Your task to perform on an android device: Search for a 36" x 48" whiteboard on Home Depot Image 0: 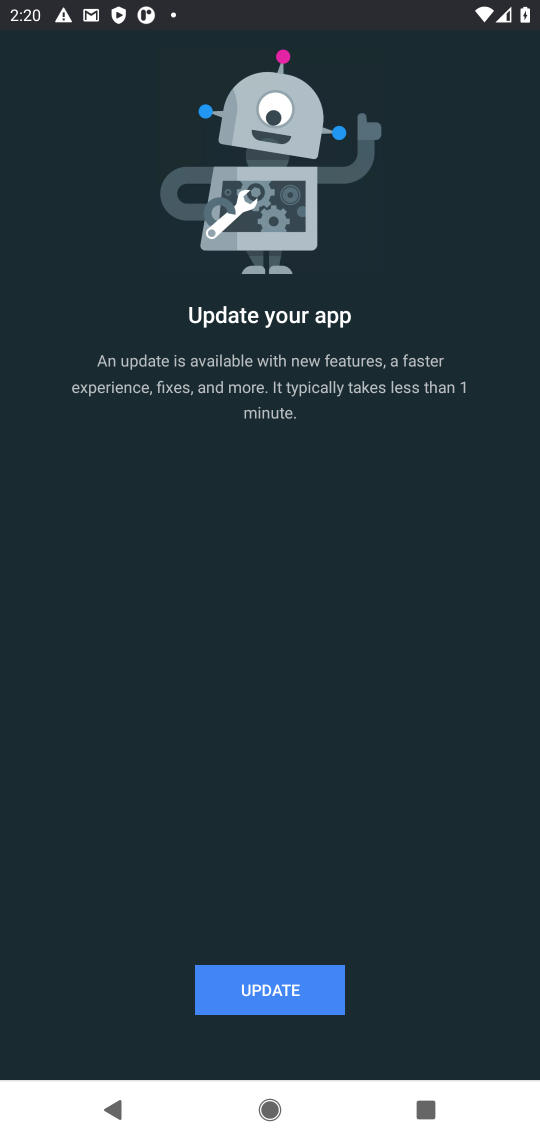
Step 0: press home button
Your task to perform on an android device: Search for a 36" x 48" whiteboard on Home Depot Image 1: 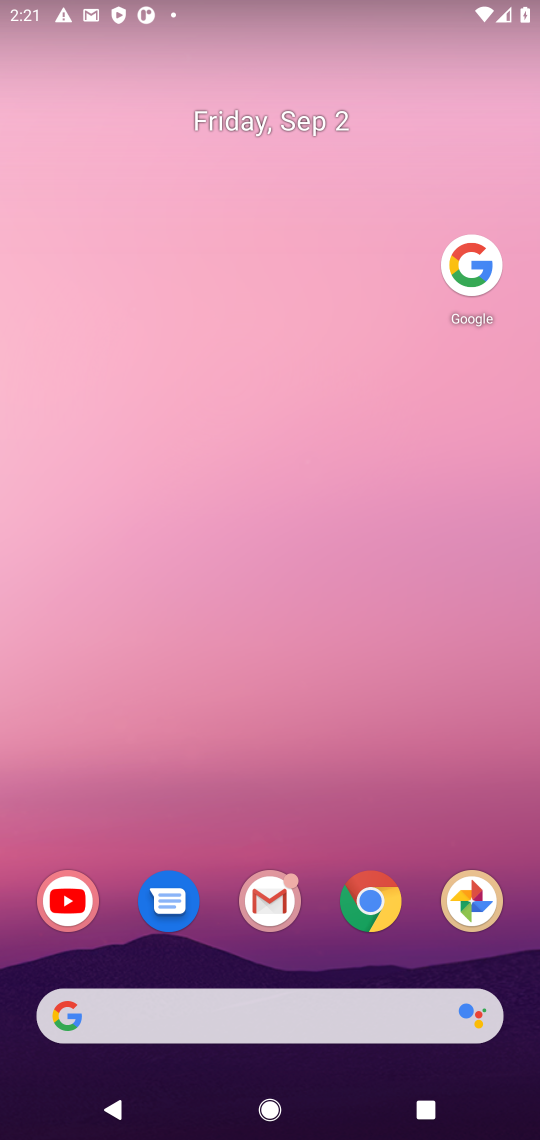
Step 1: click (465, 256)
Your task to perform on an android device: Search for a 36" x 48" whiteboard on Home Depot Image 2: 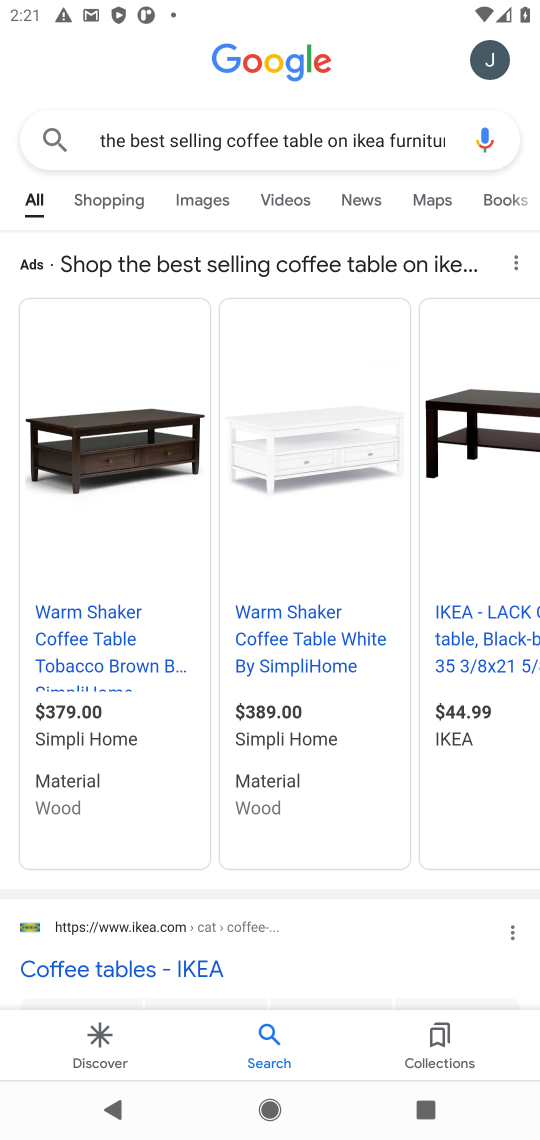
Step 2: click (385, 129)
Your task to perform on an android device: Search for a 36" x 48" whiteboard on Home Depot Image 3: 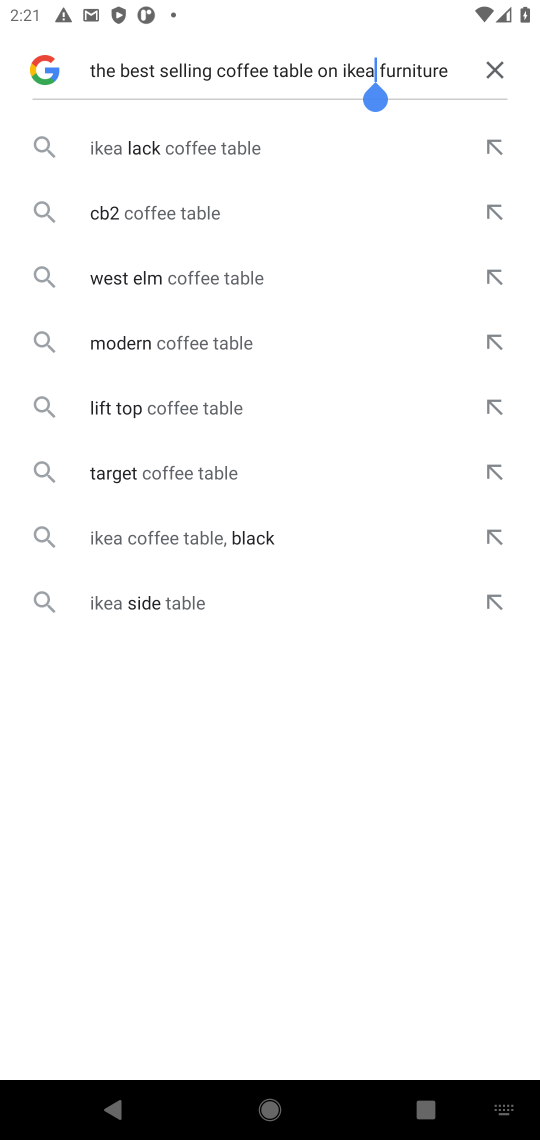
Step 3: click (489, 63)
Your task to perform on an android device: Search for a 36" x 48" whiteboard on Home Depot Image 4: 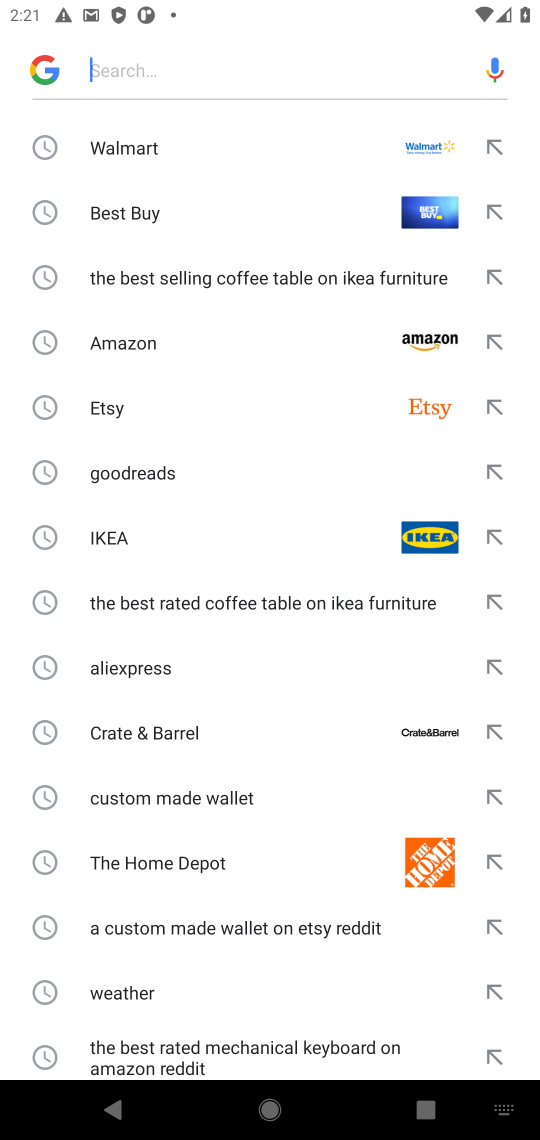
Step 4: click (262, 64)
Your task to perform on an android device: Search for a 36" x 48" whiteboard on Home Depot Image 5: 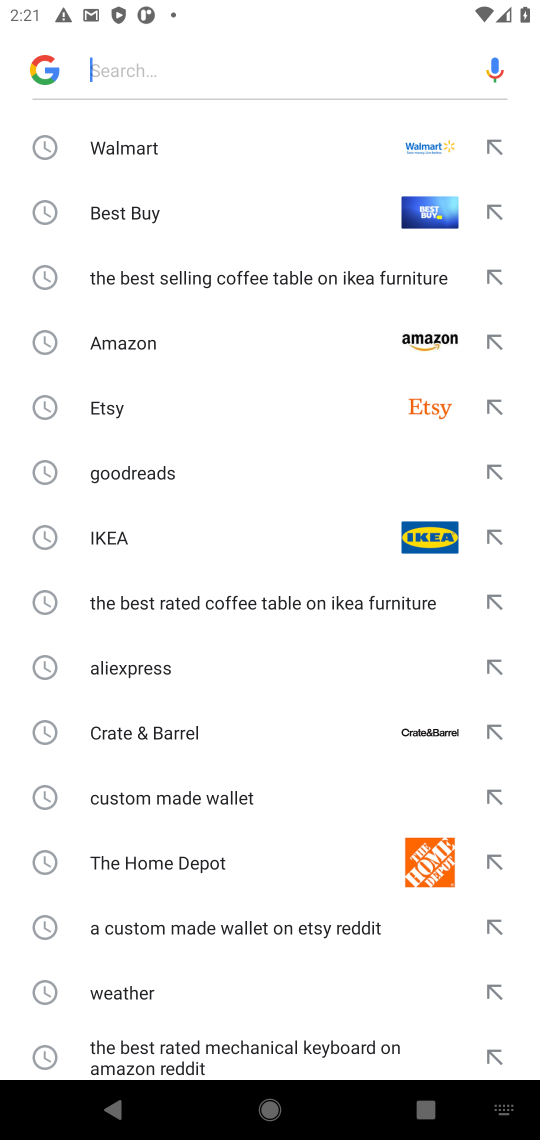
Step 5: type " a 36" x 48" whiteboard on Home Depot "
Your task to perform on an android device: Search for a 36" x 48" whiteboard on Home Depot Image 6: 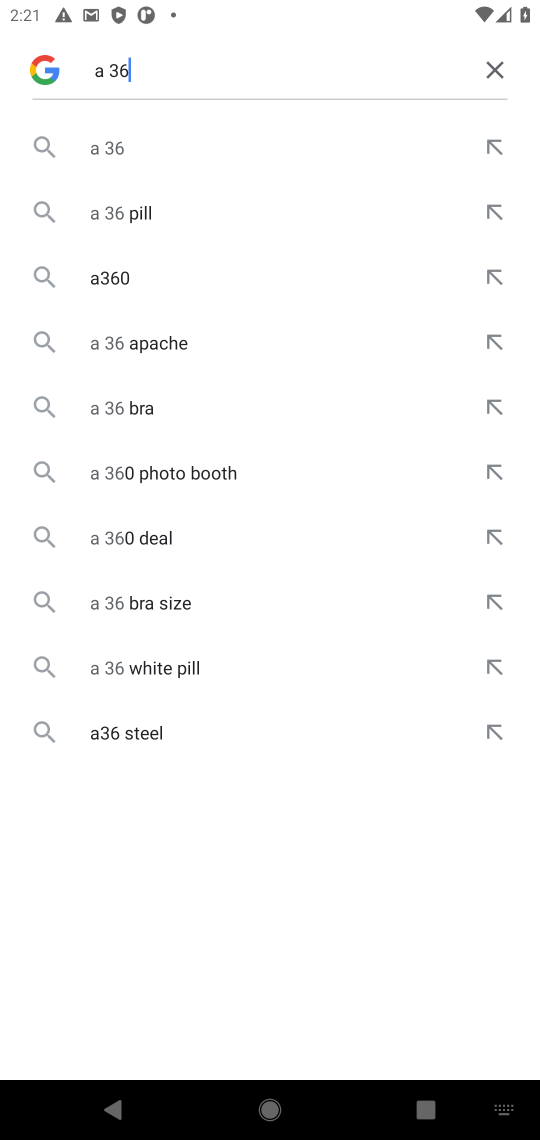
Step 6: click (121, 141)
Your task to perform on an android device: Search for a 36" x 48" whiteboard on Home Depot Image 7: 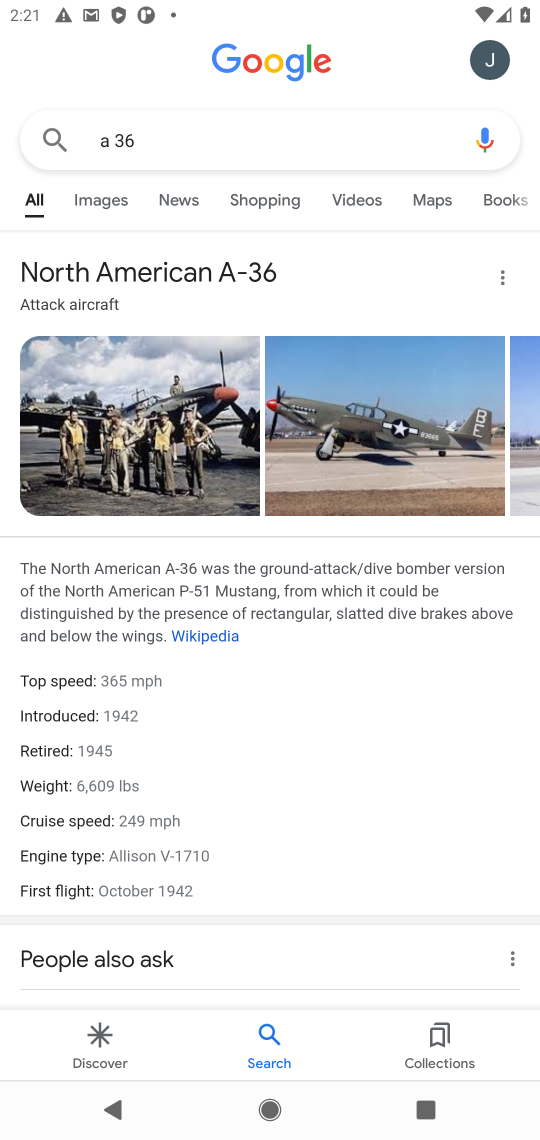
Step 7: click (433, 122)
Your task to perform on an android device: Search for a 36" x 48" whiteboard on Home Depot Image 8: 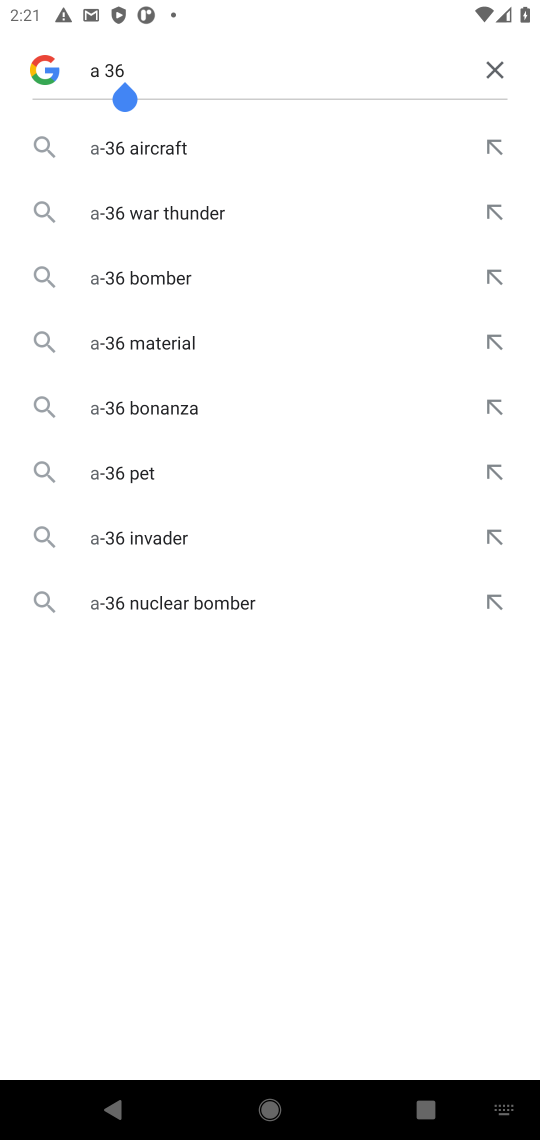
Step 8: click (501, 60)
Your task to perform on an android device: Search for a 36" x 48" whiteboard on Home Depot Image 9: 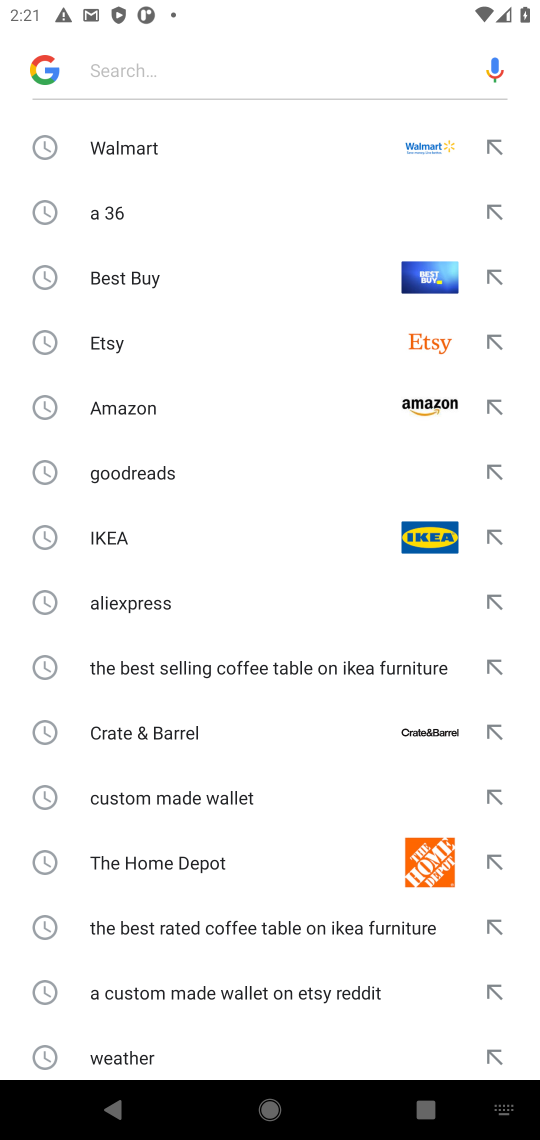
Step 9: click (233, 73)
Your task to perform on an android device: Search for a 36" x 48" whiteboard on Home Depot Image 10: 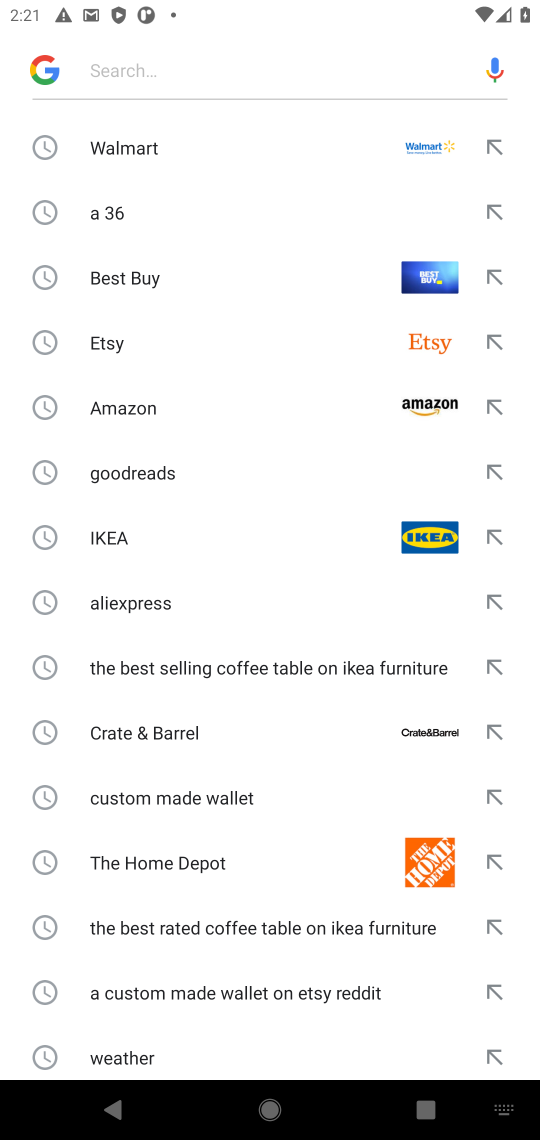
Step 10: type " a 36" x 48" whiteboard on Home Depot "
Your task to perform on an android device: Search for a 36" x 48" whiteboard on Home Depot Image 11: 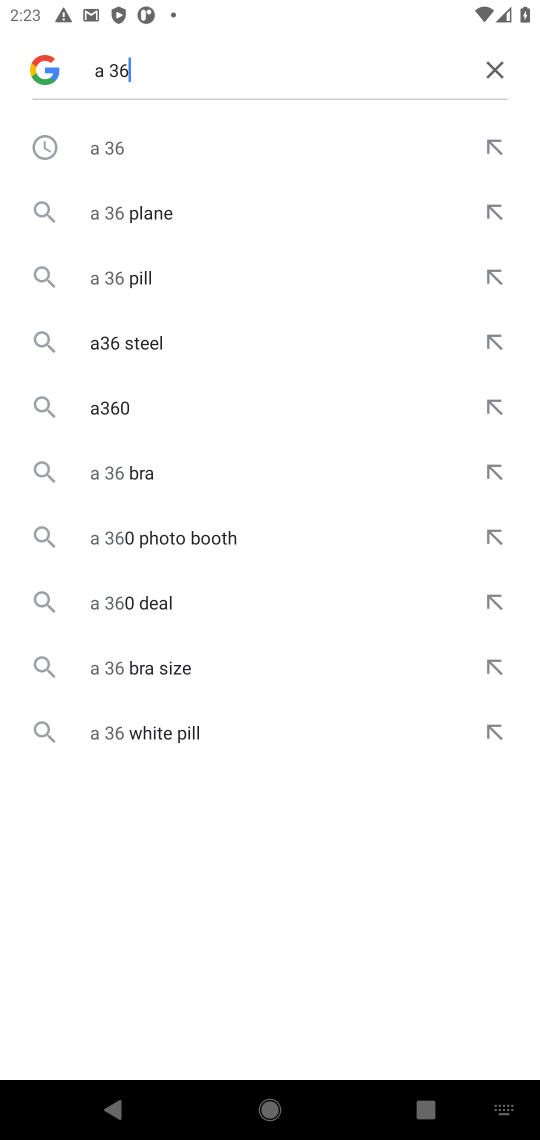
Step 11: click (503, 60)
Your task to perform on an android device: Search for a 36" x 48" whiteboard on Home Depot Image 12: 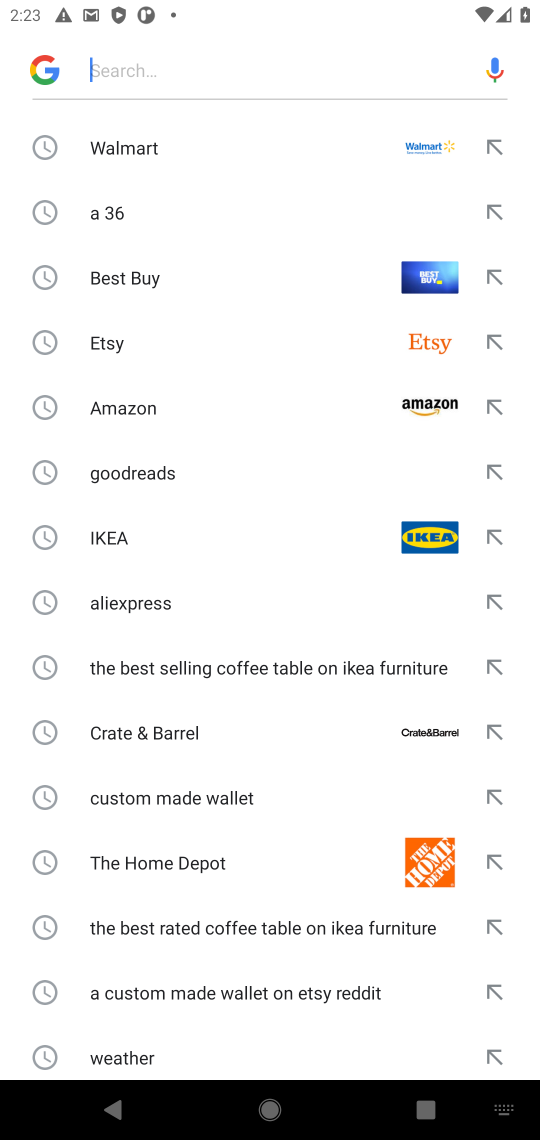
Step 12: click (195, 75)
Your task to perform on an android device: Search for a 36" x 48" whiteboard on Home Depot Image 13: 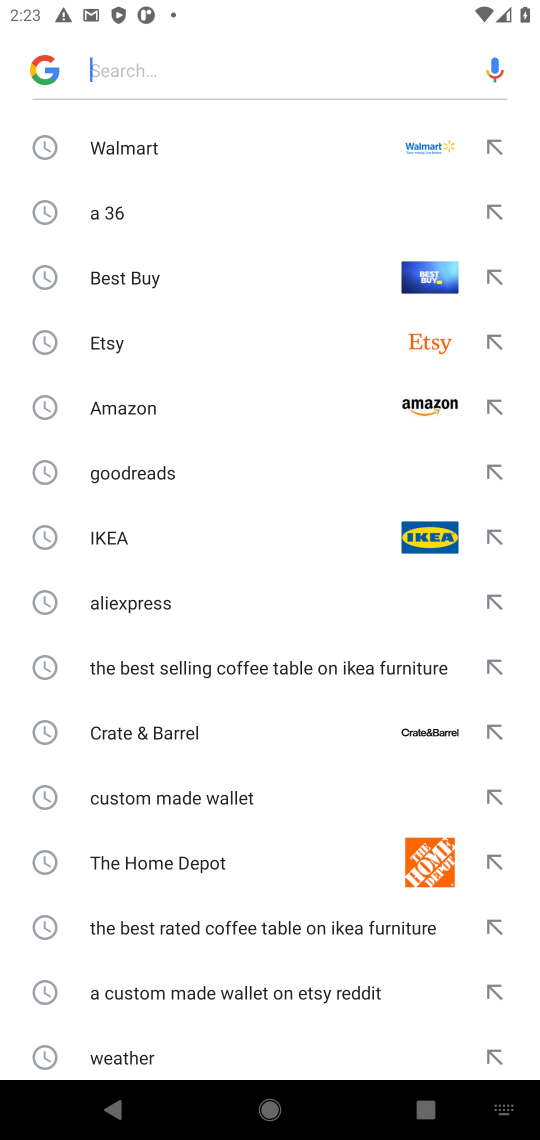
Step 13: type " whiteboard on Home Depot "
Your task to perform on an android device: Search for a 36" x 48" whiteboard on Home Depot Image 14: 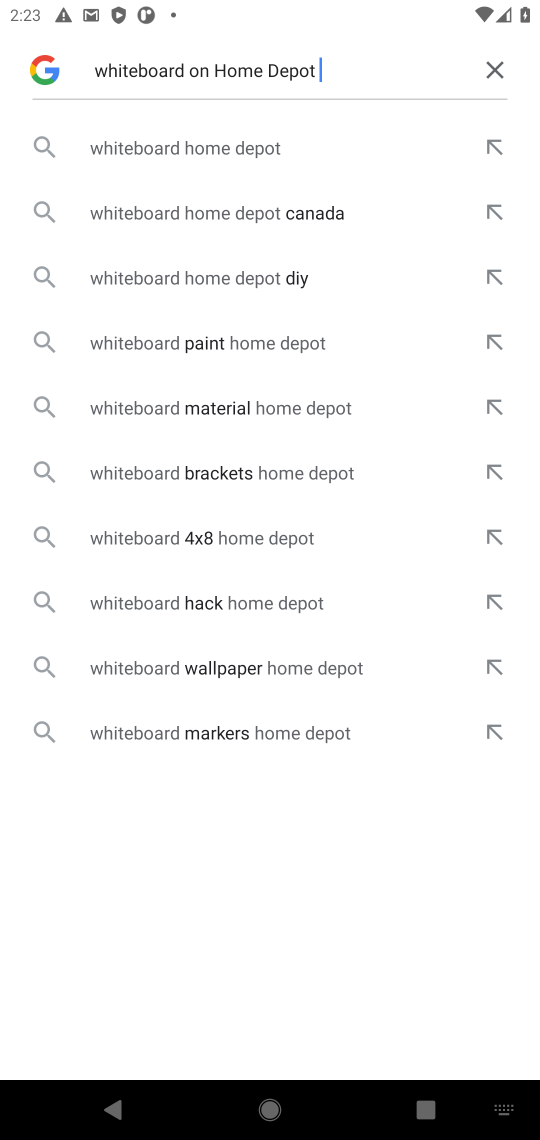
Step 14: click (251, 156)
Your task to perform on an android device: Search for a 36" x 48" whiteboard on Home Depot Image 15: 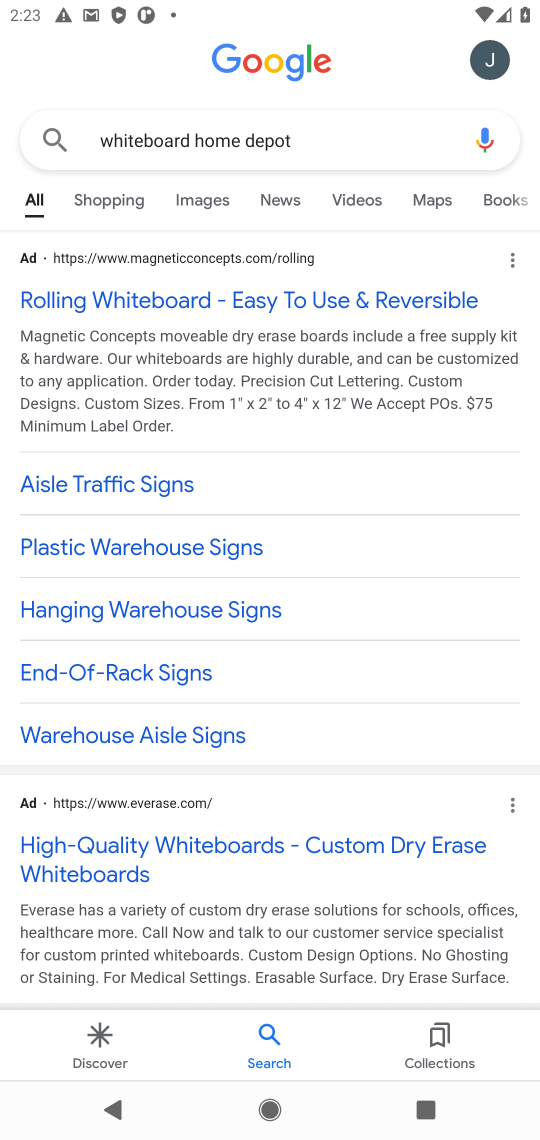
Step 15: drag from (339, 441) to (386, 260)
Your task to perform on an android device: Search for a 36" x 48" whiteboard on Home Depot Image 16: 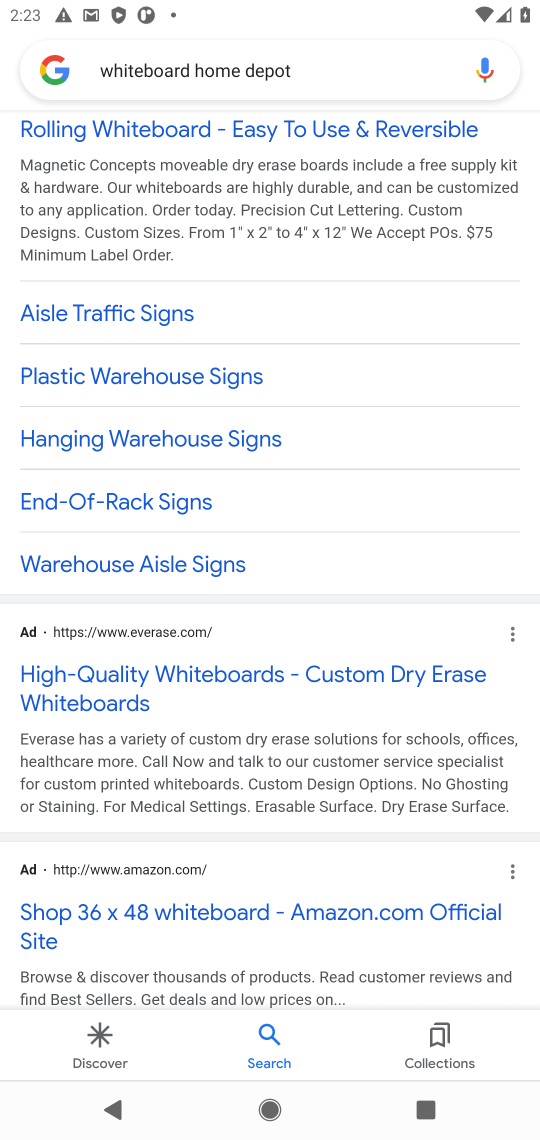
Step 16: click (230, 703)
Your task to perform on an android device: Search for a 36" x 48" whiteboard on Home Depot Image 17: 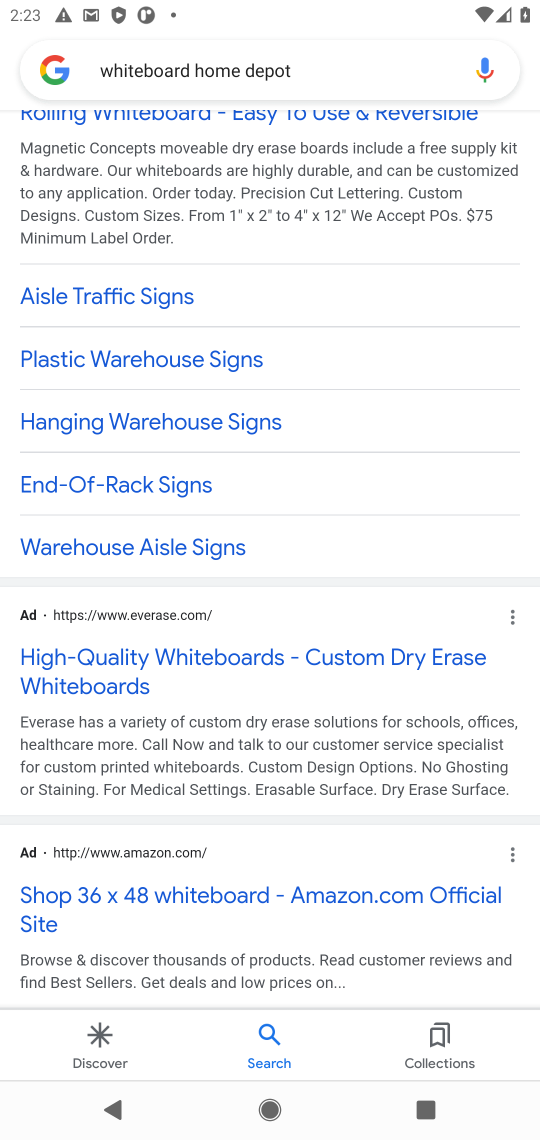
Step 17: click (210, 891)
Your task to perform on an android device: Search for a 36" x 48" whiteboard on Home Depot Image 18: 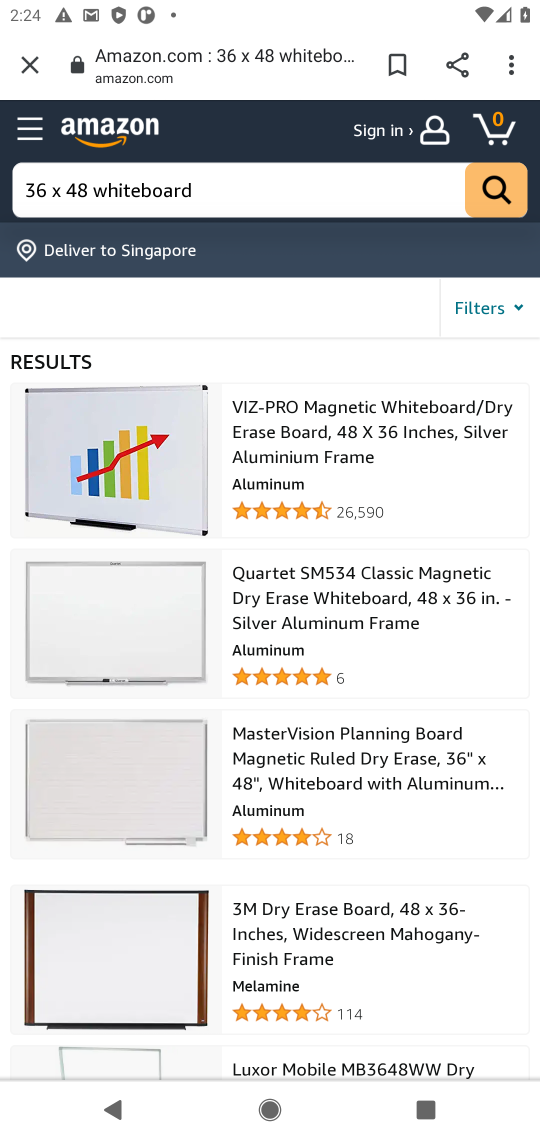
Step 18: task complete